Your task to perform on an android device: Open Google Chrome and click the shortcut for Amazon.com Image 0: 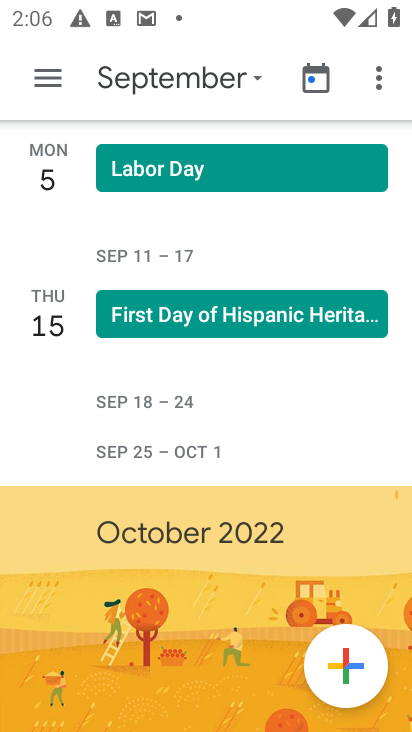
Step 0: press home button
Your task to perform on an android device: Open Google Chrome and click the shortcut for Amazon.com Image 1: 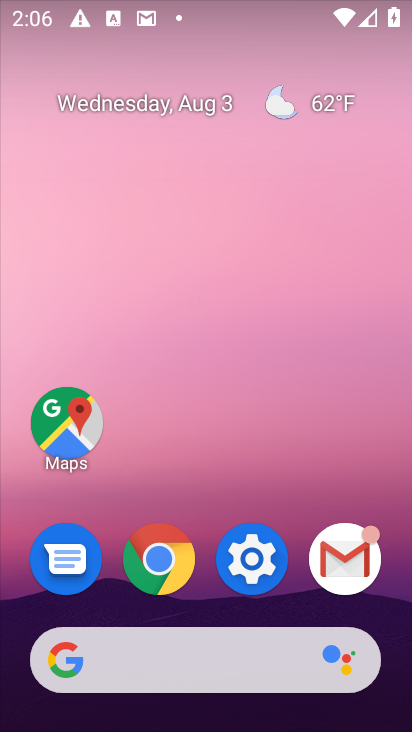
Step 1: drag from (286, 639) to (244, 243)
Your task to perform on an android device: Open Google Chrome and click the shortcut for Amazon.com Image 2: 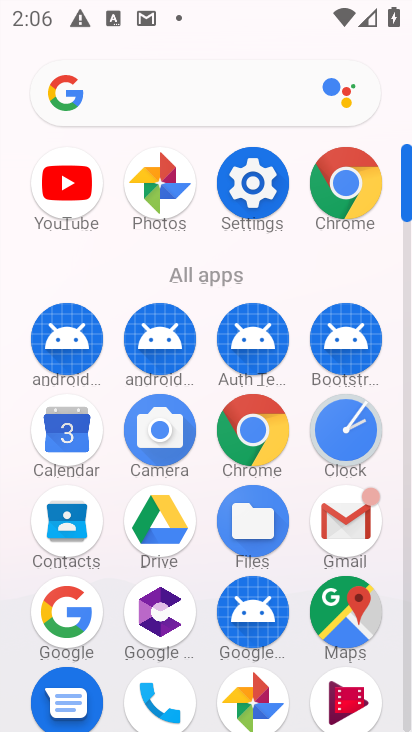
Step 2: click (341, 200)
Your task to perform on an android device: Open Google Chrome and click the shortcut for Amazon.com Image 3: 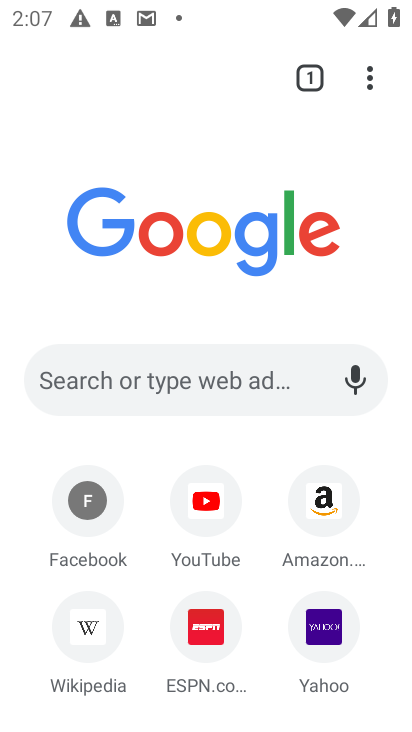
Step 3: click (316, 519)
Your task to perform on an android device: Open Google Chrome and click the shortcut for Amazon.com Image 4: 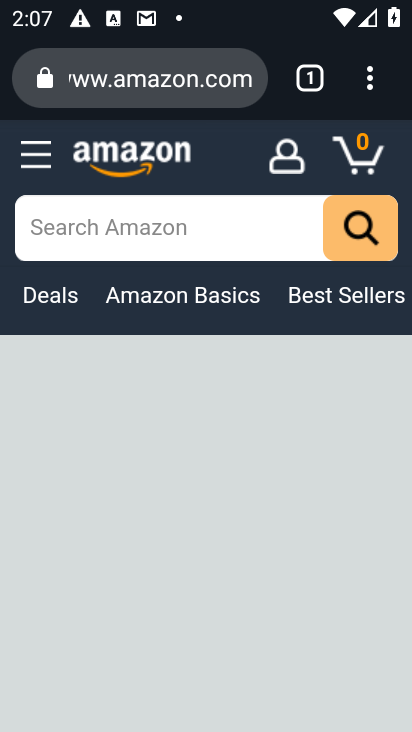
Step 4: click (365, 84)
Your task to perform on an android device: Open Google Chrome and click the shortcut for Amazon.com Image 5: 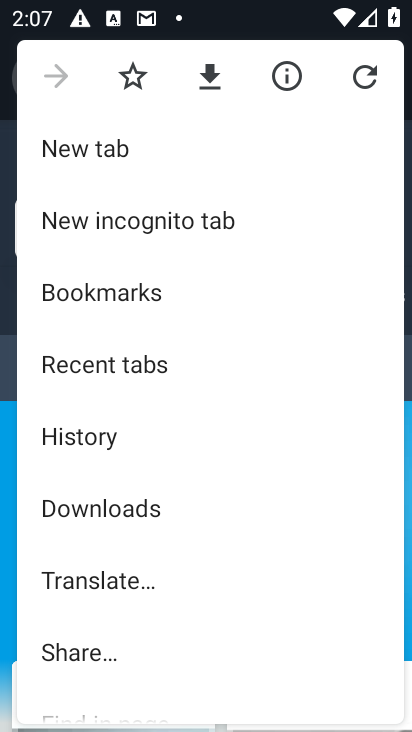
Step 5: drag from (126, 620) to (183, 407)
Your task to perform on an android device: Open Google Chrome and click the shortcut for Amazon.com Image 6: 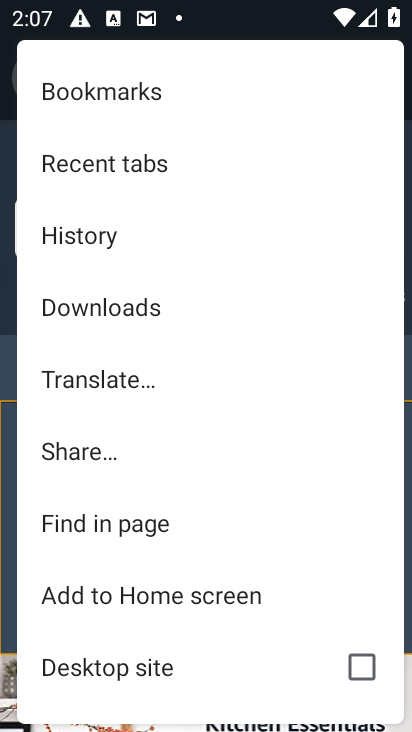
Step 6: click (195, 599)
Your task to perform on an android device: Open Google Chrome and click the shortcut for Amazon.com Image 7: 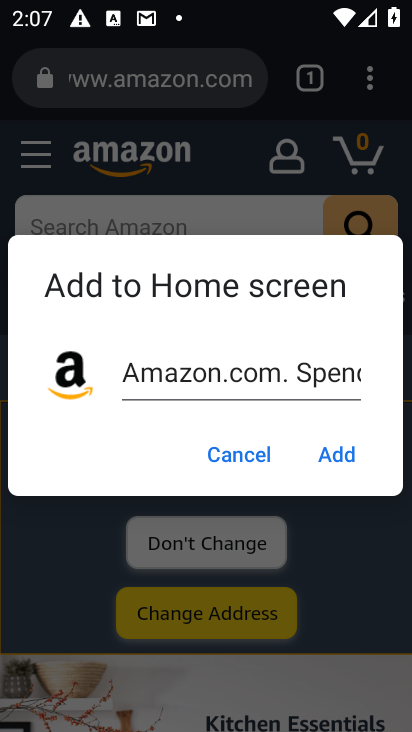
Step 7: click (333, 451)
Your task to perform on an android device: Open Google Chrome and click the shortcut for Amazon.com Image 8: 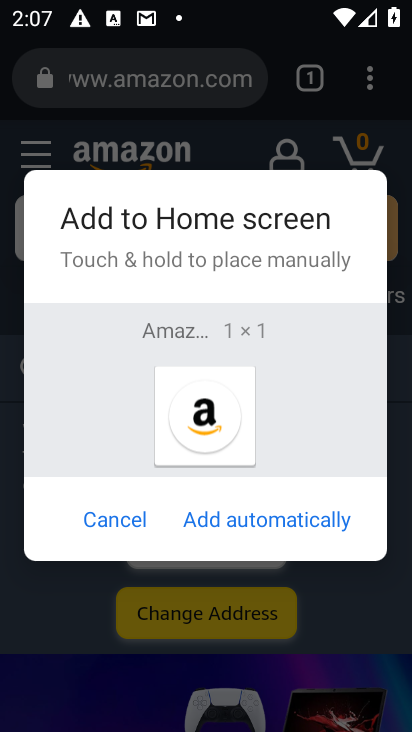
Step 8: click (299, 518)
Your task to perform on an android device: Open Google Chrome and click the shortcut for Amazon.com Image 9: 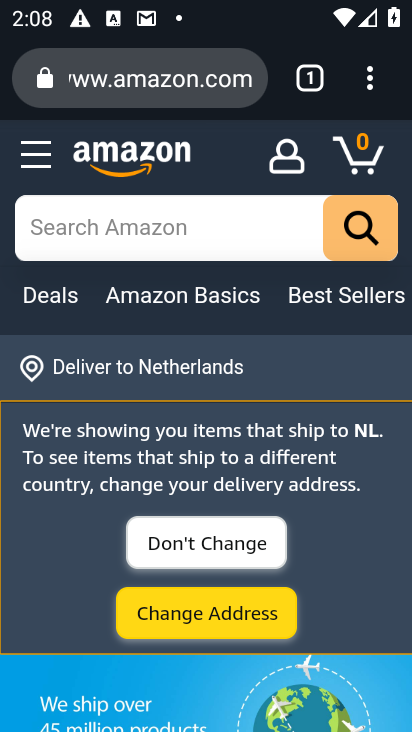
Step 9: task complete